Your task to perform on an android device: check battery use Image 0: 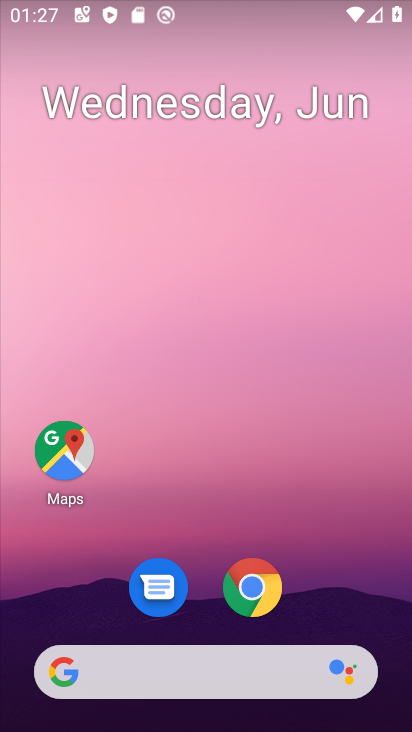
Step 0: click (301, 103)
Your task to perform on an android device: check battery use Image 1: 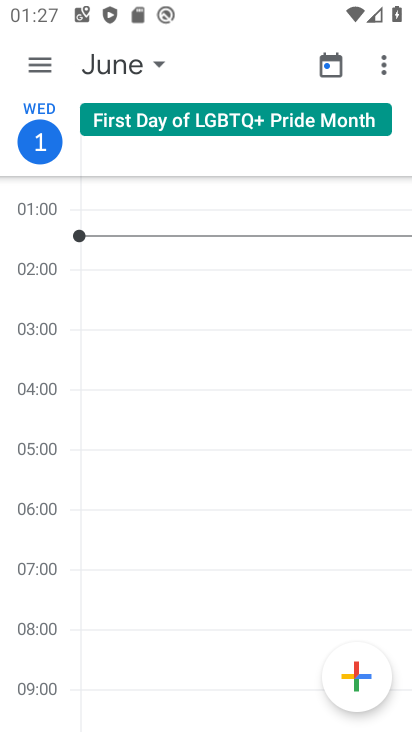
Step 1: press home button
Your task to perform on an android device: check battery use Image 2: 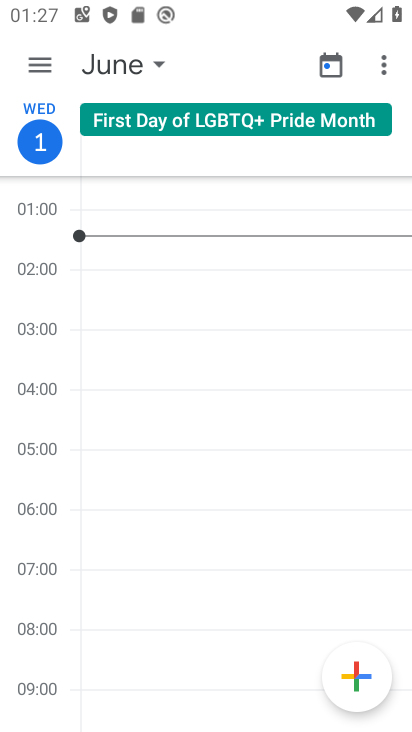
Step 2: press home button
Your task to perform on an android device: check battery use Image 3: 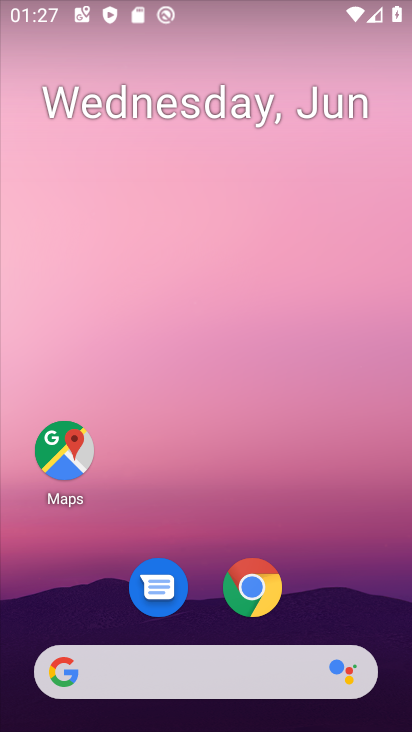
Step 3: drag from (305, 366) to (271, 91)
Your task to perform on an android device: check battery use Image 4: 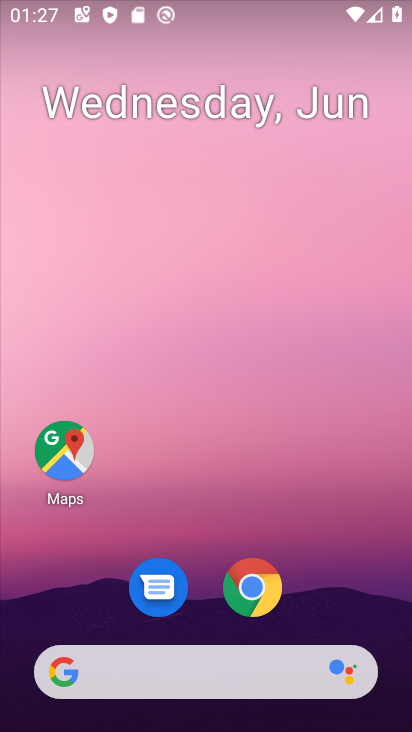
Step 4: drag from (332, 498) to (295, 59)
Your task to perform on an android device: check battery use Image 5: 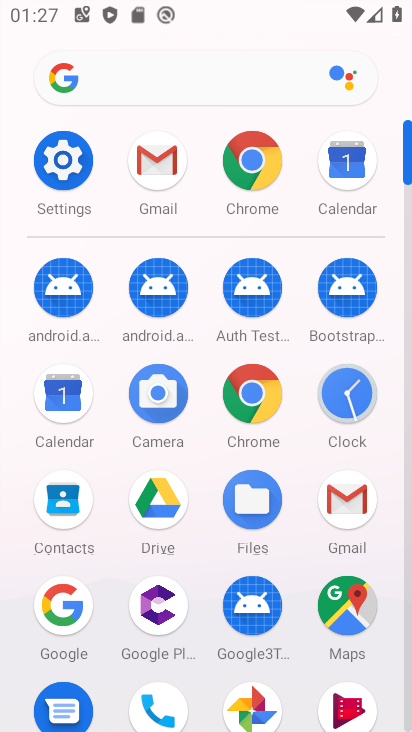
Step 5: click (60, 155)
Your task to perform on an android device: check battery use Image 6: 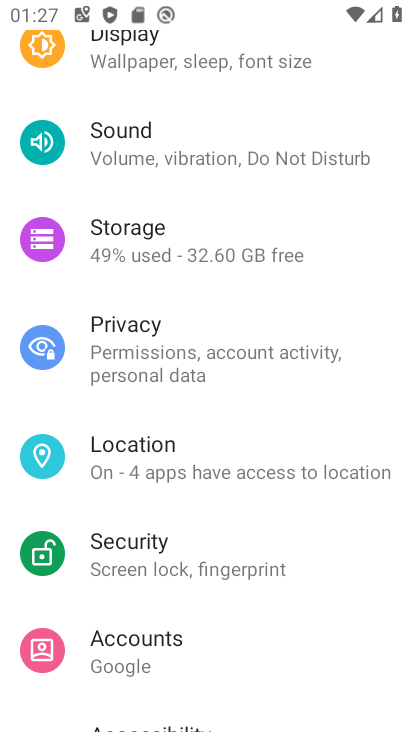
Step 6: drag from (282, 526) to (306, 78)
Your task to perform on an android device: check battery use Image 7: 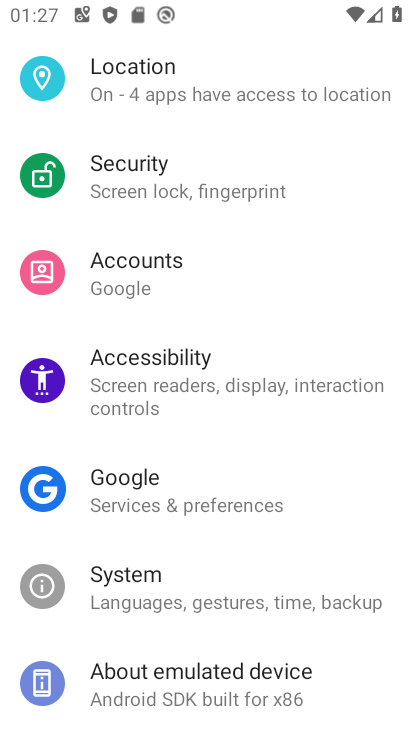
Step 7: drag from (185, 731) to (253, 719)
Your task to perform on an android device: check battery use Image 8: 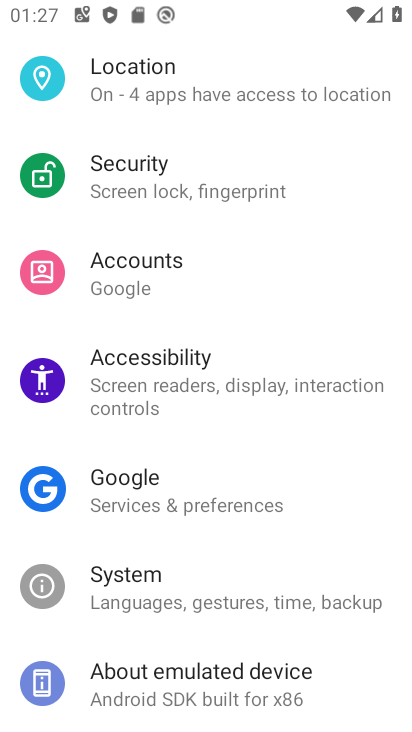
Step 8: drag from (230, 149) to (322, 609)
Your task to perform on an android device: check battery use Image 9: 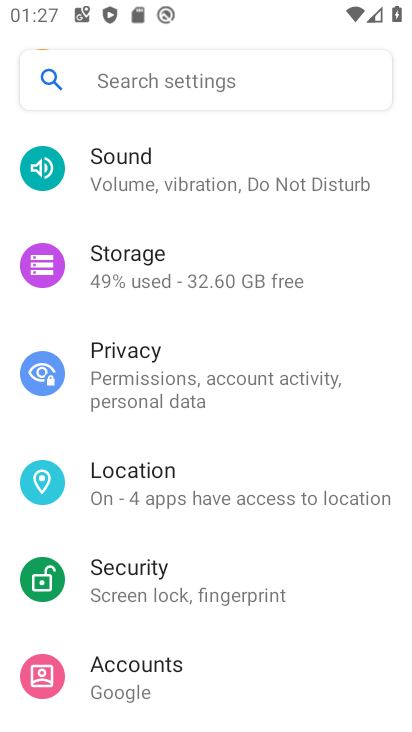
Step 9: drag from (325, 354) to (338, 641)
Your task to perform on an android device: check battery use Image 10: 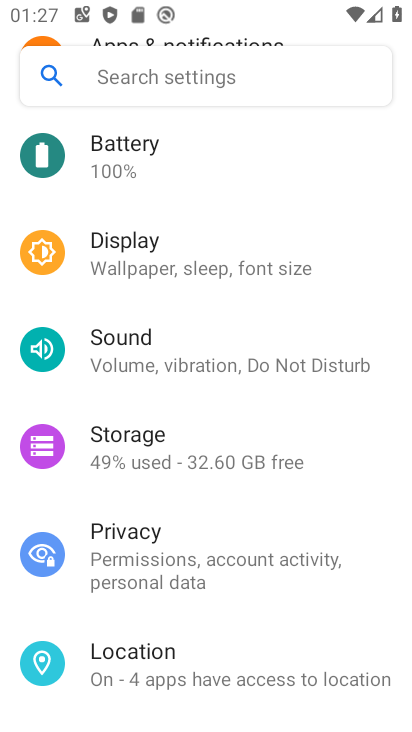
Step 10: click (114, 156)
Your task to perform on an android device: check battery use Image 11: 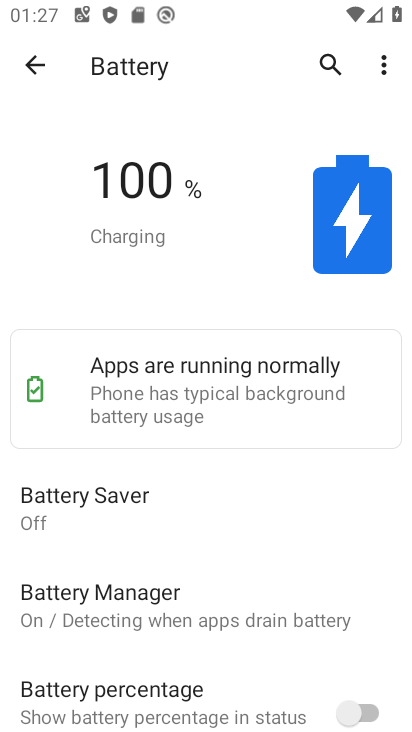
Step 11: click (385, 60)
Your task to perform on an android device: check battery use Image 12: 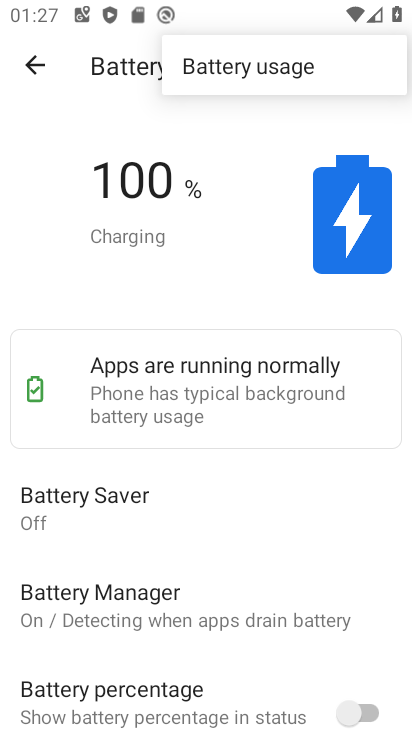
Step 12: click (270, 71)
Your task to perform on an android device: check battery use Image 13: 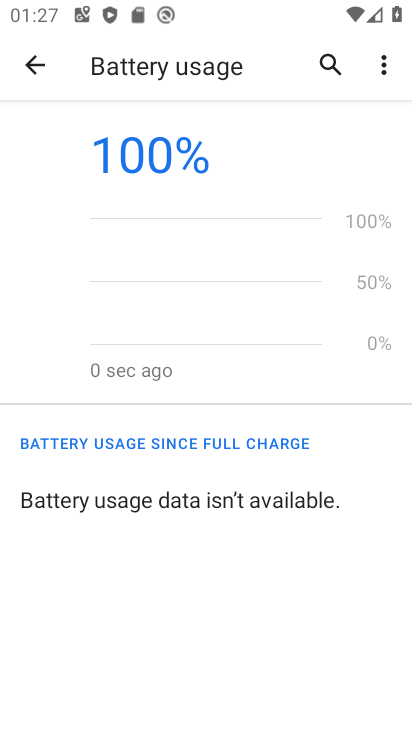
Step 13: task complete